Your task to perform on an android device: turn notification dots on Image 0: 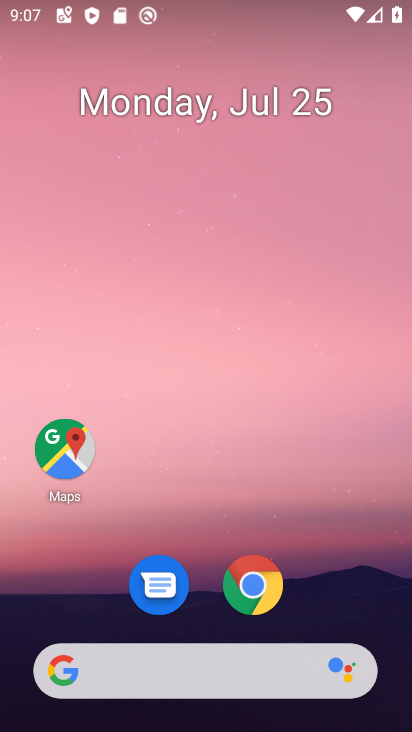
Step 0: press home button
Your task to perform on an android device: turn notification dots on Image 1: 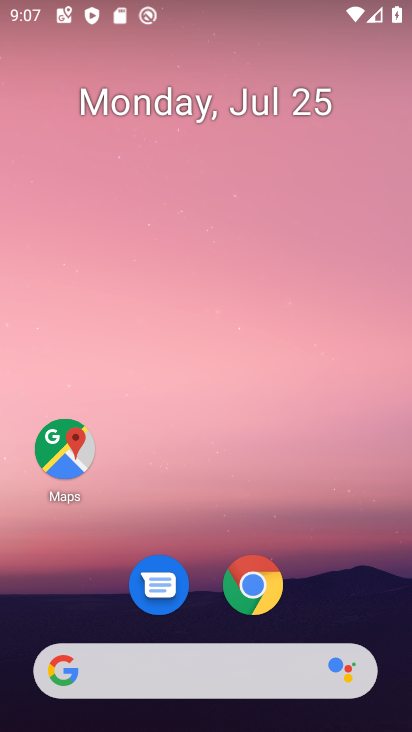
Step 1: drag from (175, 680) to (376, 0)
Your task to perform on an android device: turn notification dots on Image 2: 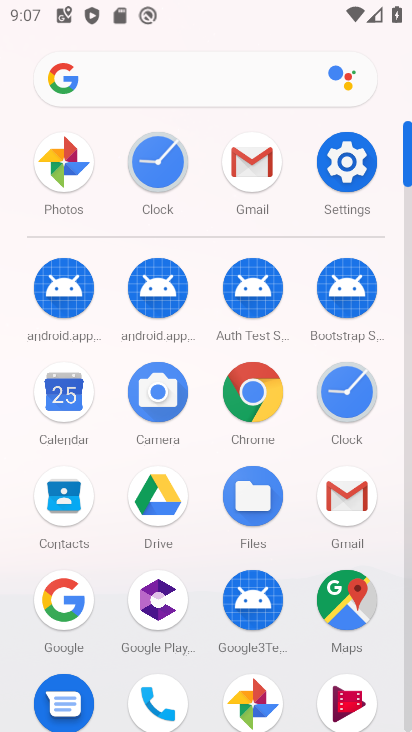
Step 2: click (353, 134)
Your task to perform on an android device: turn notification dots on Image 3: 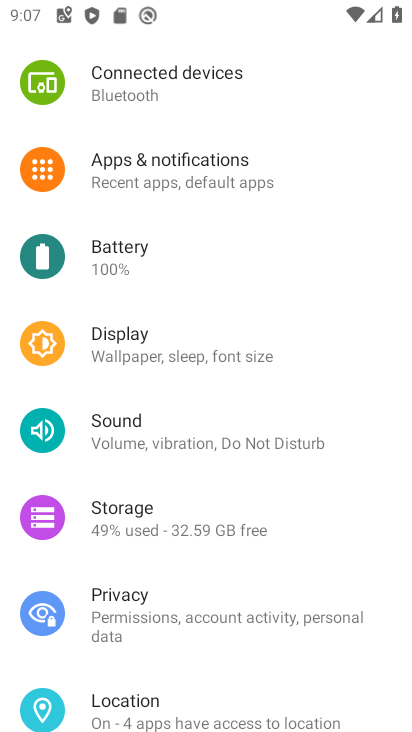
Step 3: click (210, 176)
Your task to perform on an android device: turn notification dots on Image 4: 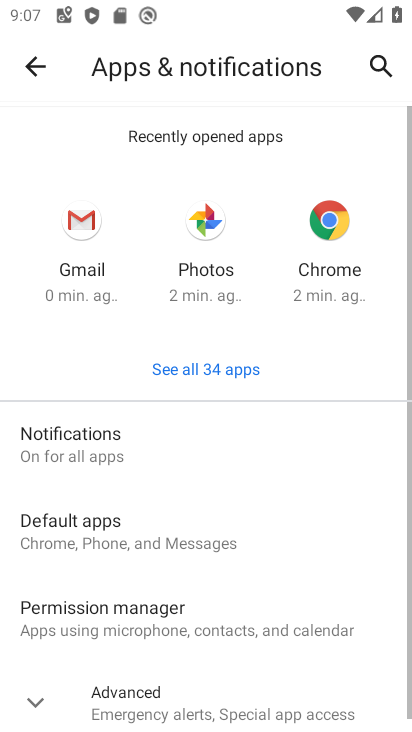
Step 4: click (99, 442)
Your task to perform on an android device: turn notification dots on Image 5: 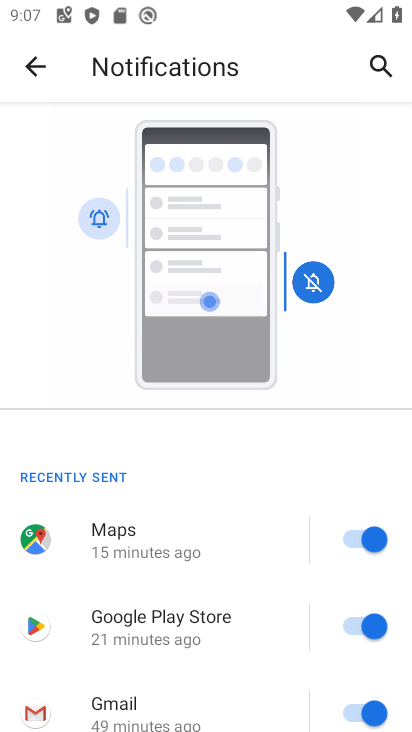
Step 5: drag from (214, 663) to (359, 61)
Your task to perform on an android device: turn notification dots on Image 6: 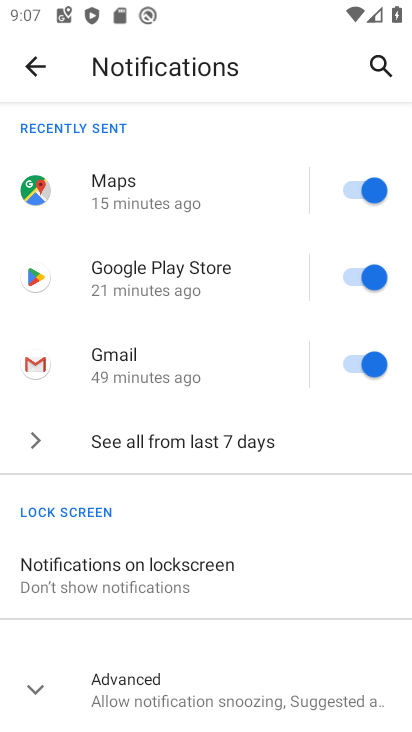
Step 6: click (156, 686)
Your task to perform on an android device: turn notification dots on Image 7: 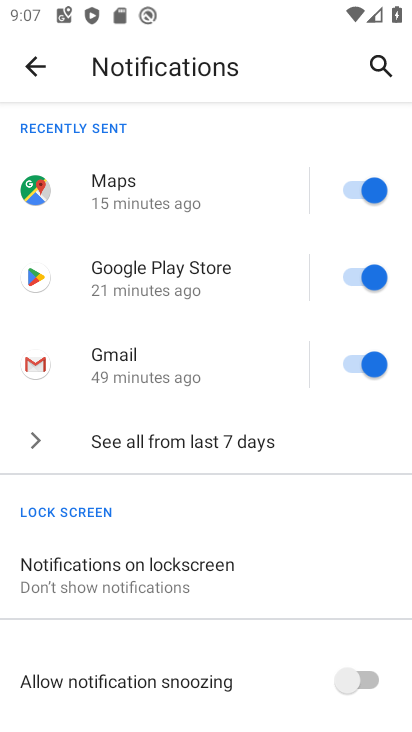
Step 7: drag from (243, 644) to (301, 40)
Your task to perform on an android device: turn notification dots on Image 8: 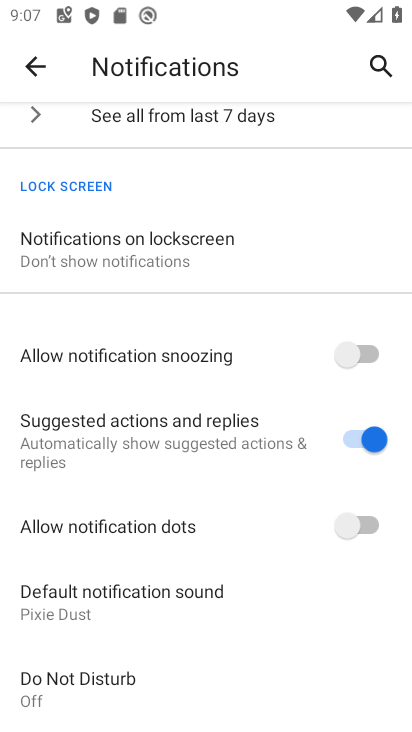
Step 8: click (370, 530)
Your task to perform on an android device: turn notification dots on Image 9: 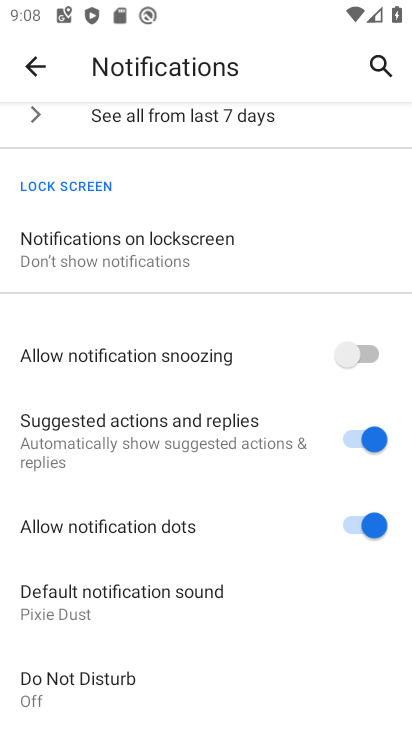
Step 9: task complete